Your task to perform on an android device: Search for Italian restaurants on Maps Image 0: 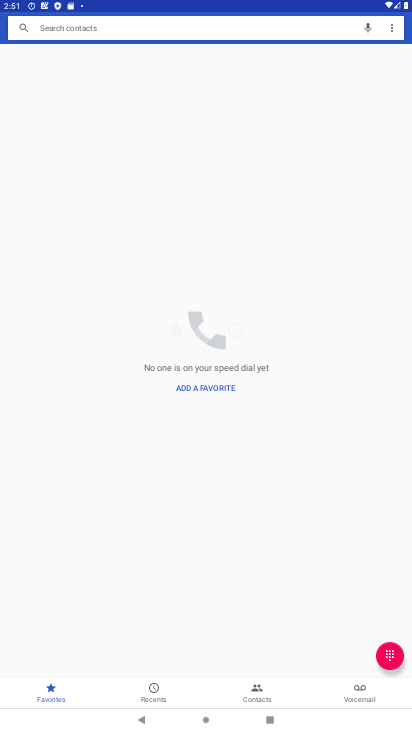
Step 0: press home button
Your task to perform on an android device: Search for Italian restaurants on Maps Image 1: 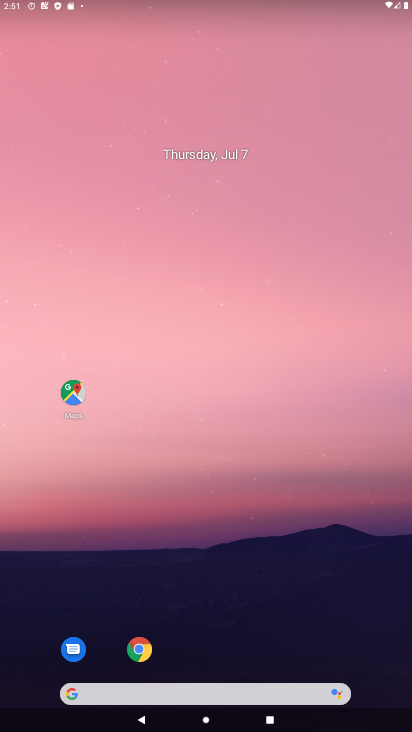
Step 1: drag from (265, 690) to (297, 21)
Your task to perform on an android device: Search for Italian restaurants on Maps Image 2: 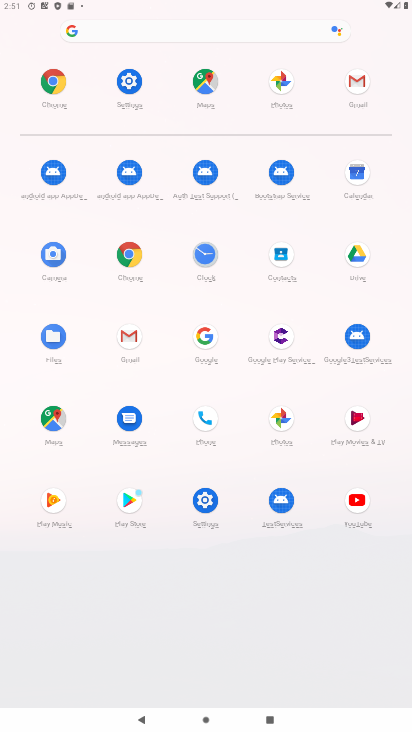
Step 2: click (60, 423)
Your task to perform on an android device: Search for Italian restaurants on Maps Image 3: 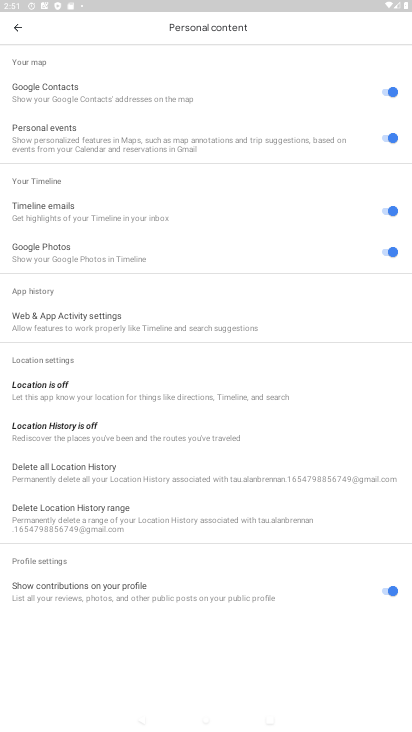
Step 3: press back button
Your task to perform on an android device: Search for Italian restaurants on Maps Image 4: 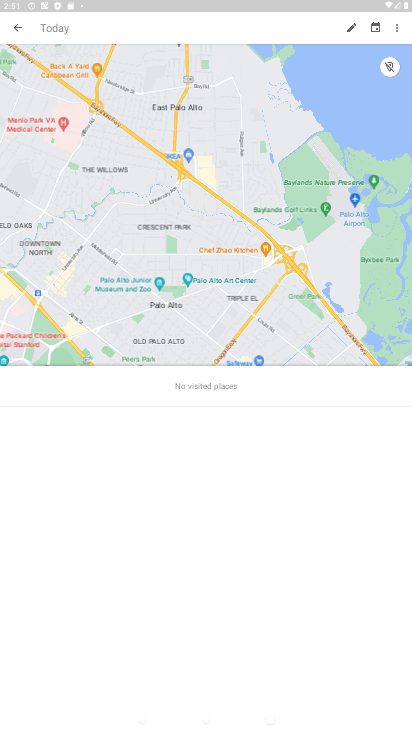
Step 4: press back button
Your task to perform on an android device: Search for Italian restaurants on Maps Image 5: 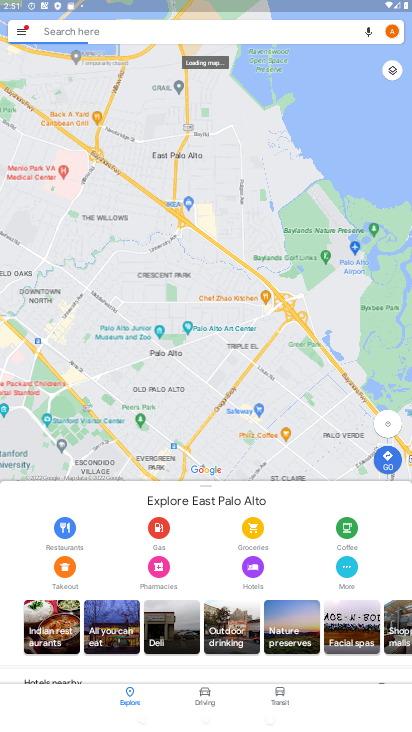
Step 5: click (76, 39)
Your task to perform on an android device: Search for Italian restaurants on Maps Image 6: 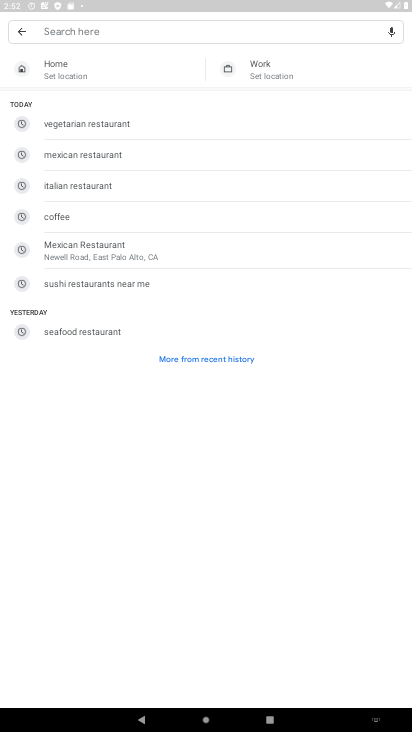
Step 6: click (124, 182)
Your task to perform on an android device: Search for Italian restaurants on Maps Image 7: 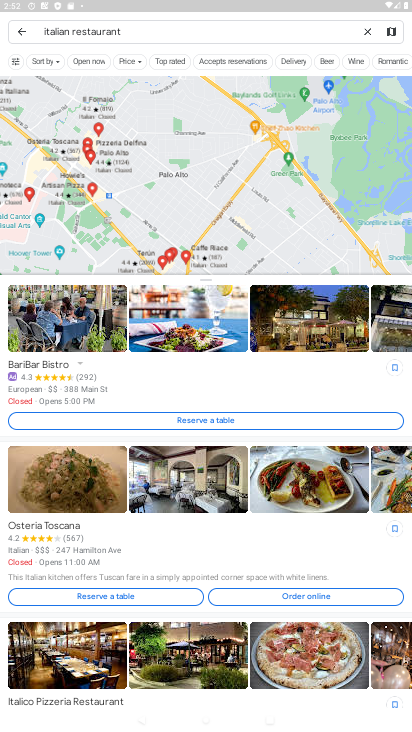
Step 7: task complete